Your task to perform on an android device: delete location history Image 0: 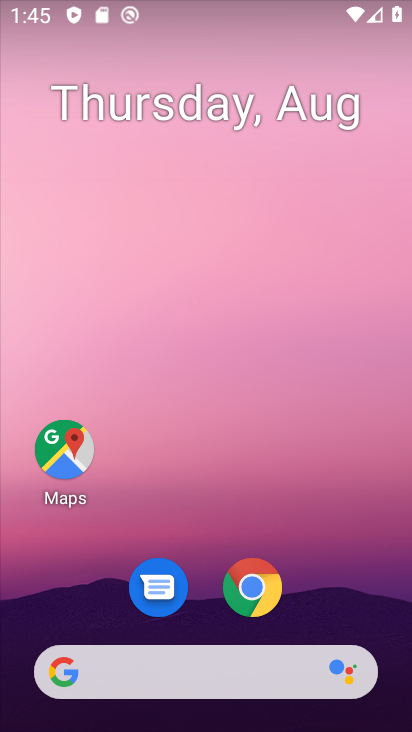
Step 0: click (64, 452)
Your task to perform on an android device: delete location history Image 1: 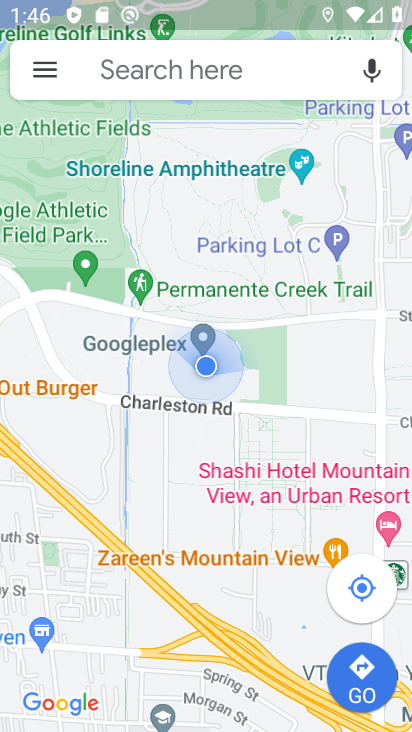
Step 1: click (41, 66)
Your task to perform on an android device: delete location history Image 2: 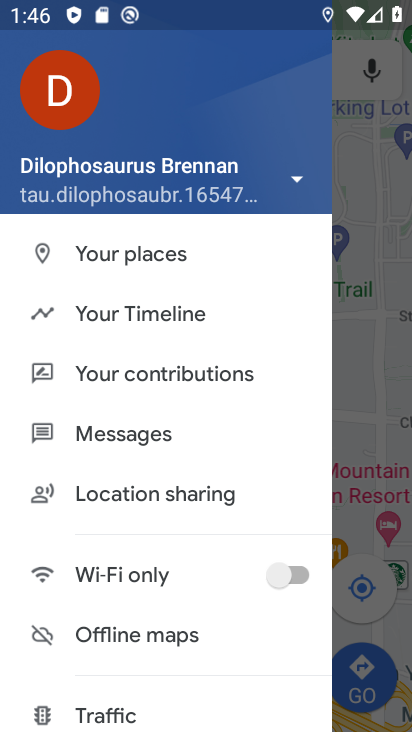
Step 2: click (151, 318)
Your task to perform on an android device: delete location history Image 3: 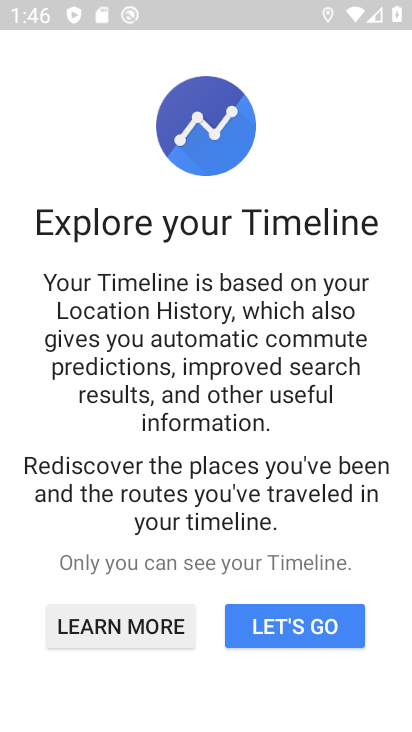
Step 3: click (284, 625)
Your task to perform on an android device: delete location history Image 4: 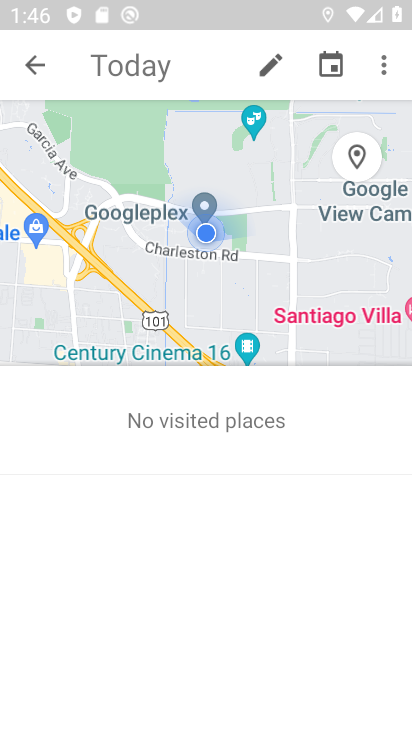
Step 4: click (387, 65)
Your task to perform on an android device: delete location history Image 5: 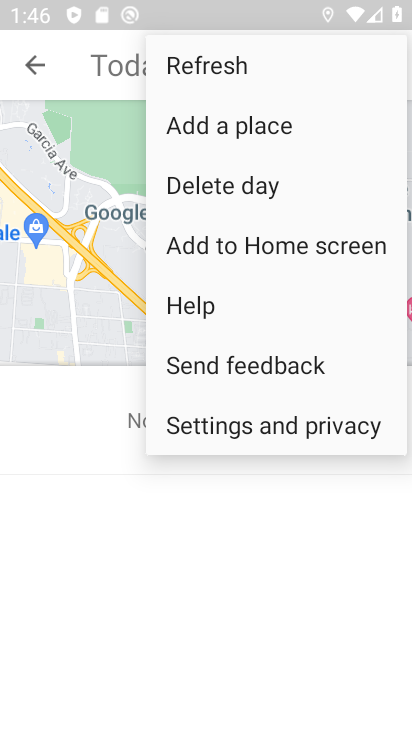
Step 5: click (276, 424)
Your task to perform on an android device: delete location history Image 6: 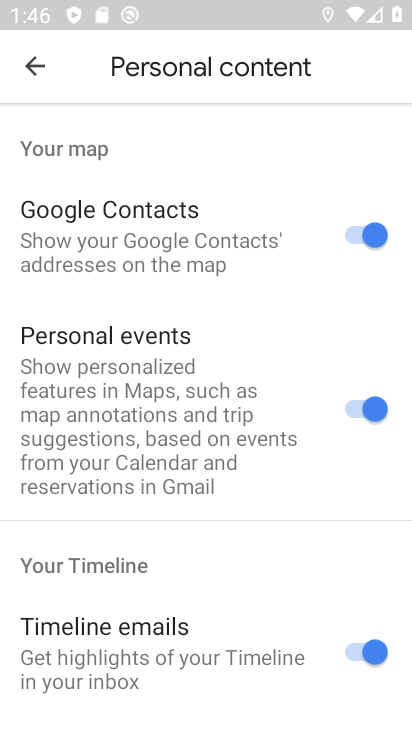
Step 6: drag from (273, 507) to (234, 199)
Your task to perform on an android device: delete location history Image 7: 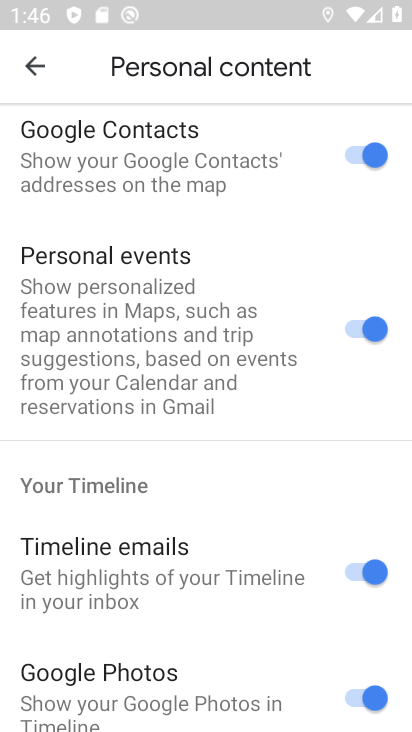
Step 7: drag from (230, 576) to (243, 197)
Your task to perform on an android device: delete location history Image 8: 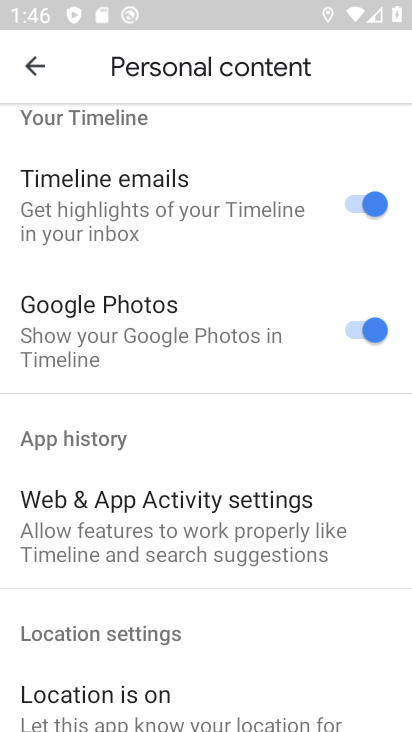
Step 8: drag from (272, 622) to (246, 159)
Your task to perform on an android device: delete location history Image 9: 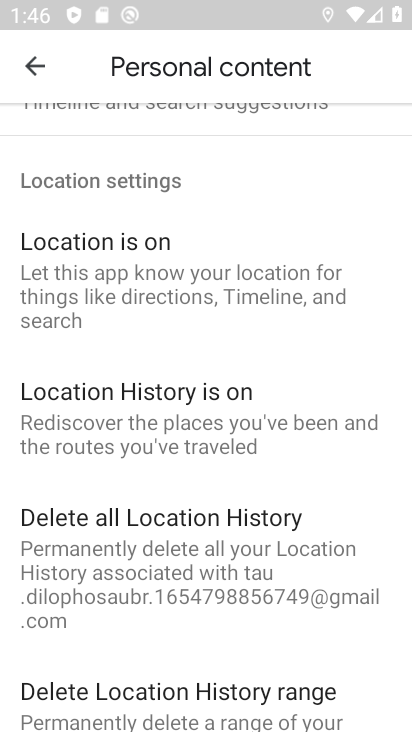
Step 9: click (184, 518)
Your task to perform on an android device: delete location history Image 10: 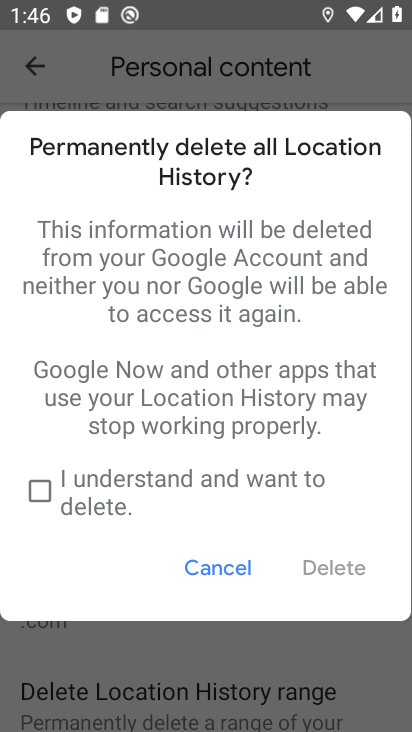
Step 10: click (38, 491)
Your task to perform on an android device: delete location history Image 11: 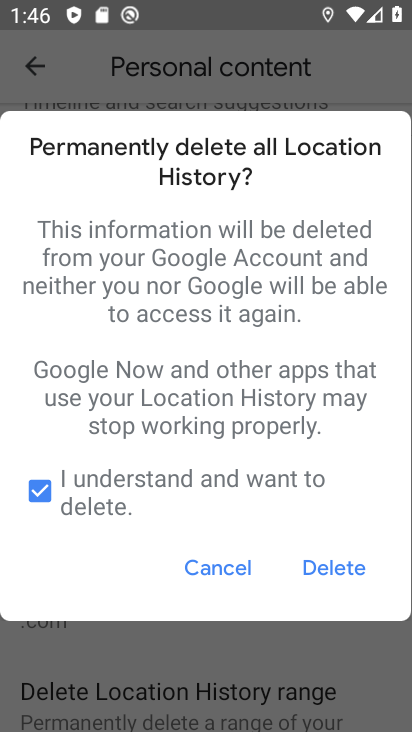
Step 11: click (335, 566)
Your task to perform on an android device: delete location history Image 12: 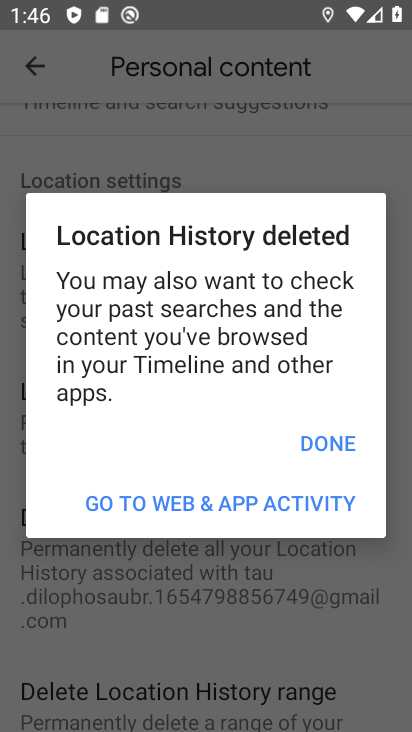
Step 12: click (333, 440)
Your task to perform on an android device: delete location history Image 13: 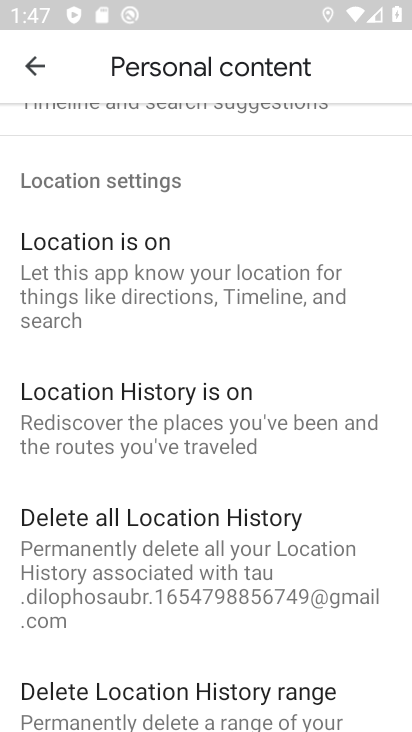
Step 13: task complete